Your task to perform on an android device: change the clock style Image 0: 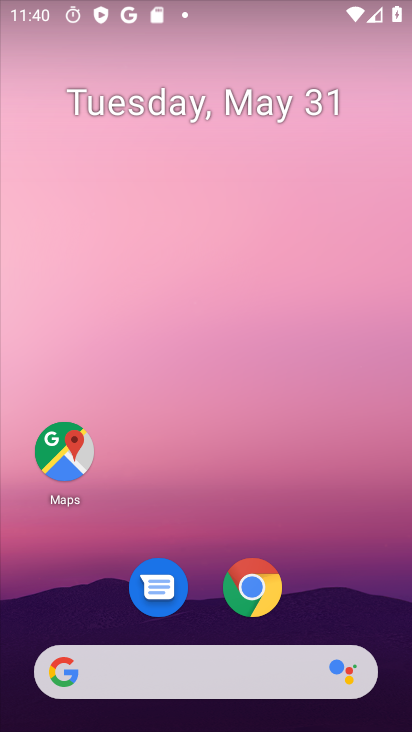
Step 0: drag from (324, 529) to (218, 106)
Your task to perform on an android device: change the clock style Image 1: 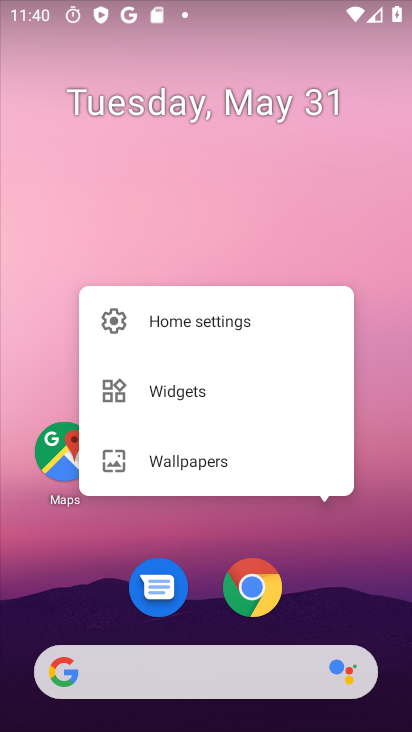
Step 1: click (273, 179)
Your task to perform on an android device: change the clock style Image 2: 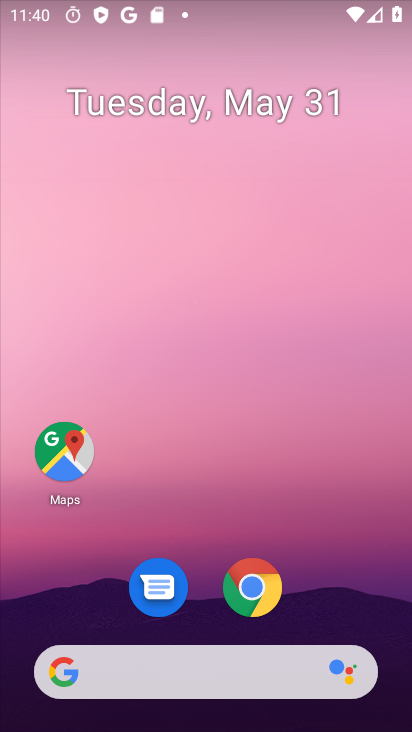
Step 2: drag from (371, 492) to (312, 32)
Your task to perform on an android device: change the clock style Image 3: 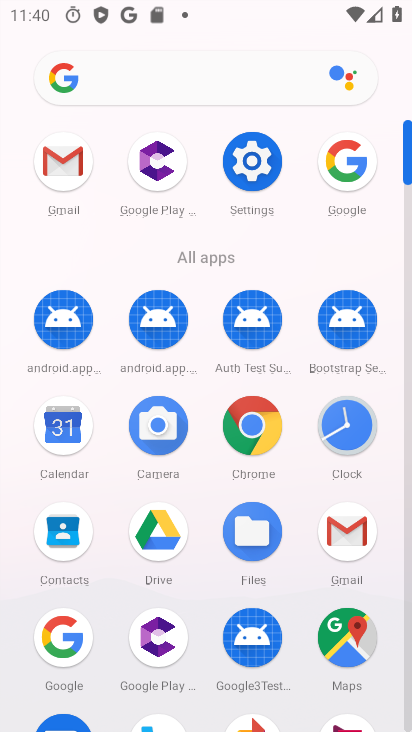
Step 3: click (349, 425)
Your task to perform on an android device: change the clock style Image 4: 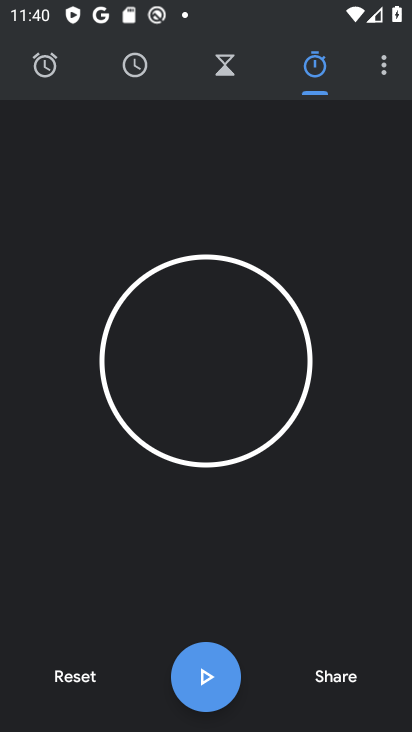
Step 4: click (384, 67)
Your task to perform on an android device: change the clock style Image 5: 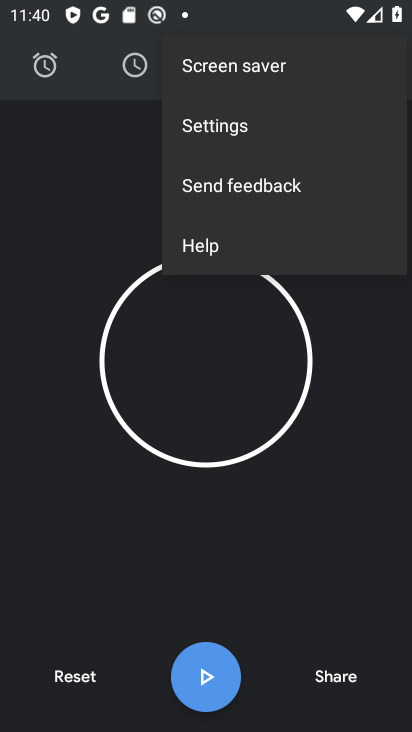
Step 5: click (238, 126)
Your task to perform on an android device: change the clock style Image 6: 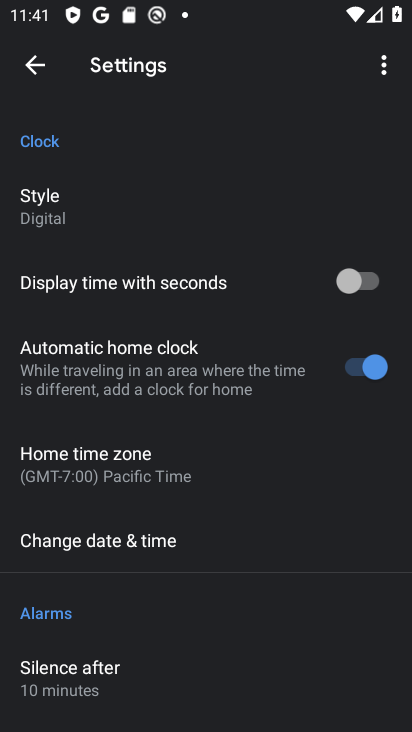
Step 6: click (67, 196)
Your task to perform on an android device: change the clock style Image 7: 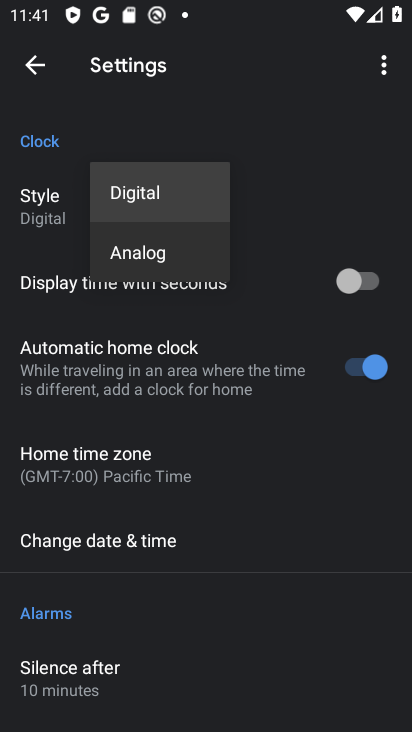
Step 7: click (133, 246)
Your task to perform on an android device: change the clock style Image 8: 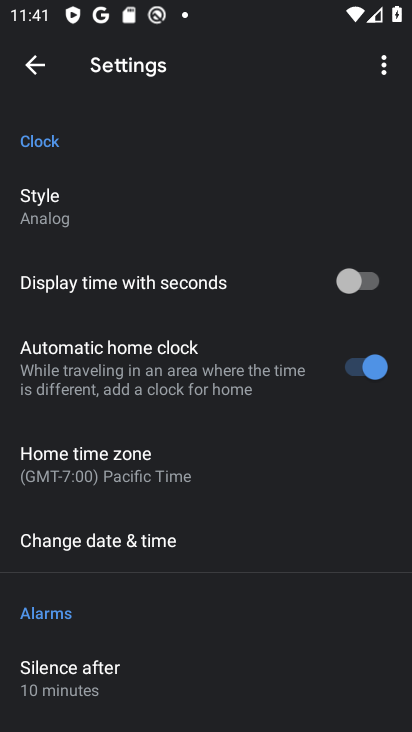
Step 8: task complete